Your task to perform on an android device: Play the last video I watched on Youtube Image 0: 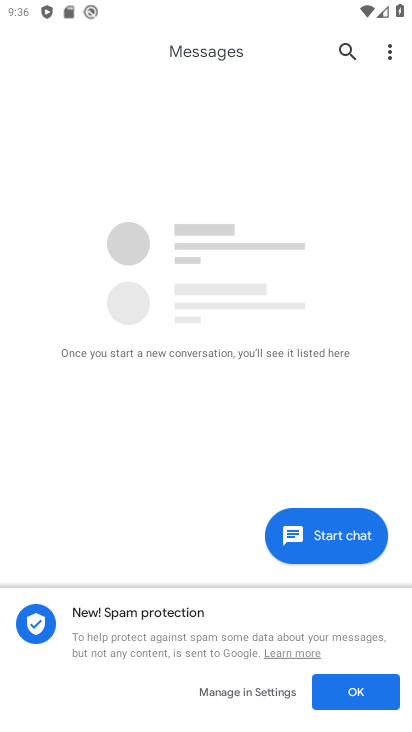
Step 0: press back button
Your task to perform on an android device: Play the last video I watched on Youtube Image 1: 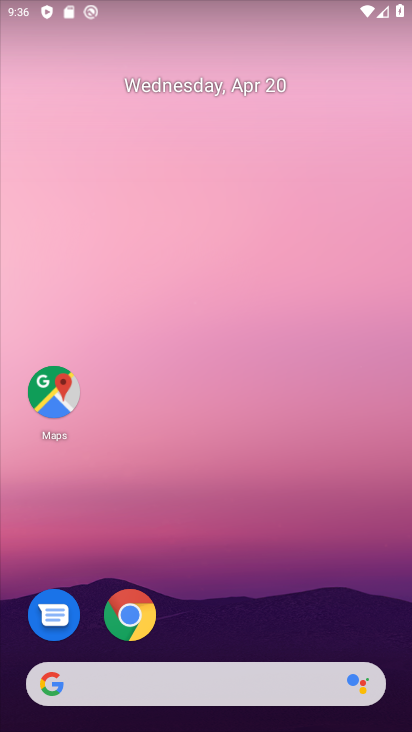
Step 1: drag from (292, 602) to (326, 26)
Your task to perform on an android device: Play the last video I watched on Youtube Image 2: 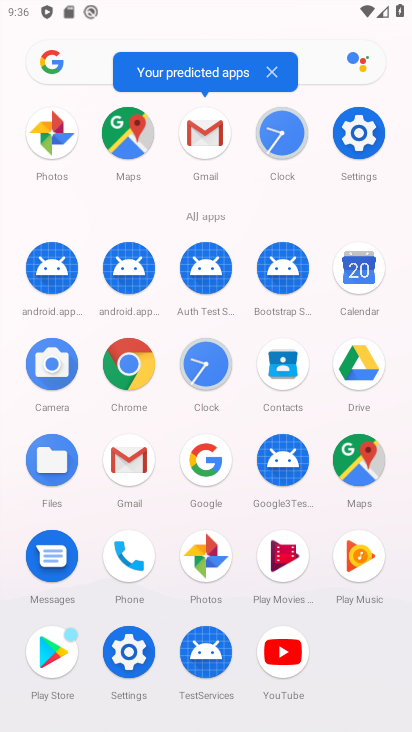
Step 2: click (288, 679)
Your task to perform on an android device: Play the last video I watched on Youtube Image 3: 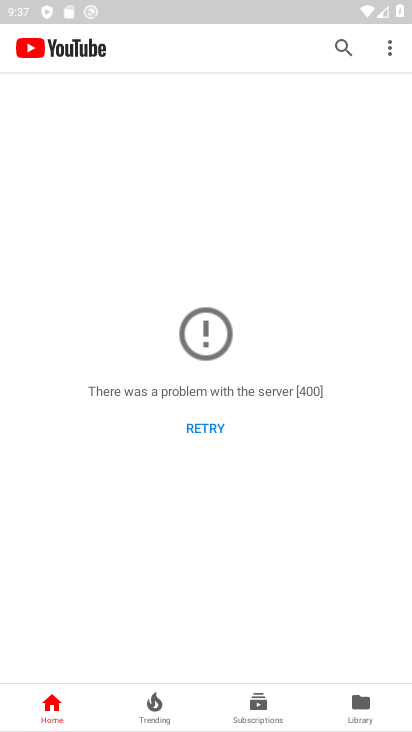
Step 3: click (358, 709)
Your task to perform on an android device: Play the last video I watched on Youtube Image 4: 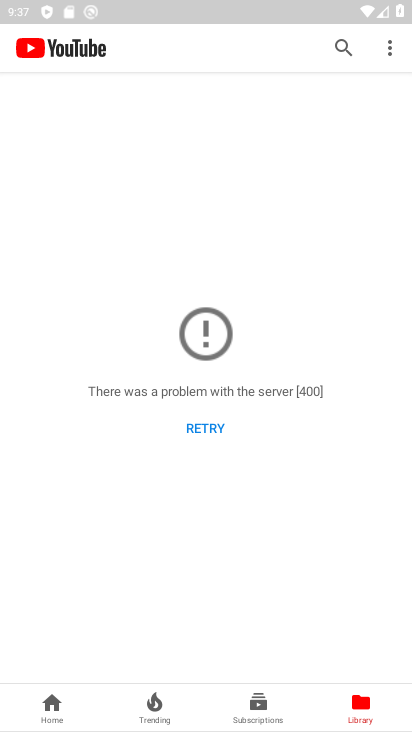
Step 4: task complete